Your task to perform on an android device: Check the news Image 0: 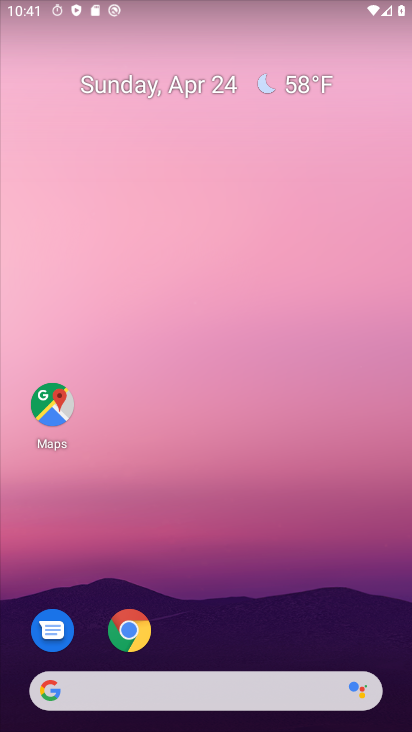
Step 0: drag from (261, 556) to (326, 194)
Your task to perform on an android device: Check the news Image 1: 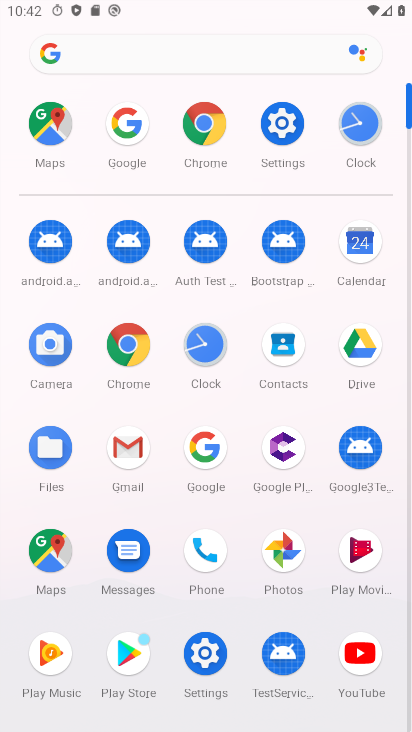
Step 1: click (199, 480)
Your task to perform on an android device: Check the news Image 2: 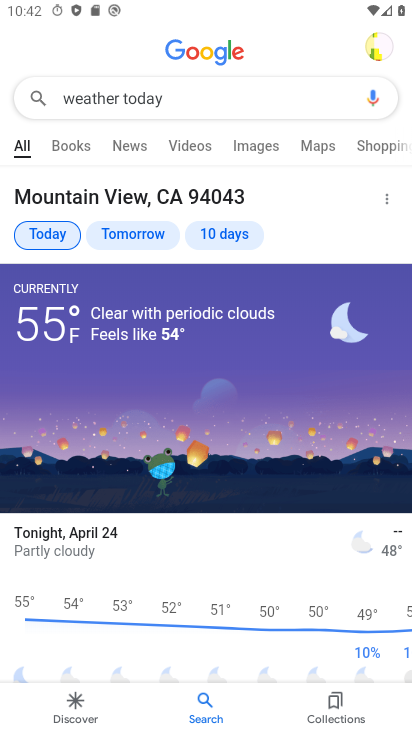
Step 2: click (130, 142)
Your task to perform on an android device: Check the news Image 3: 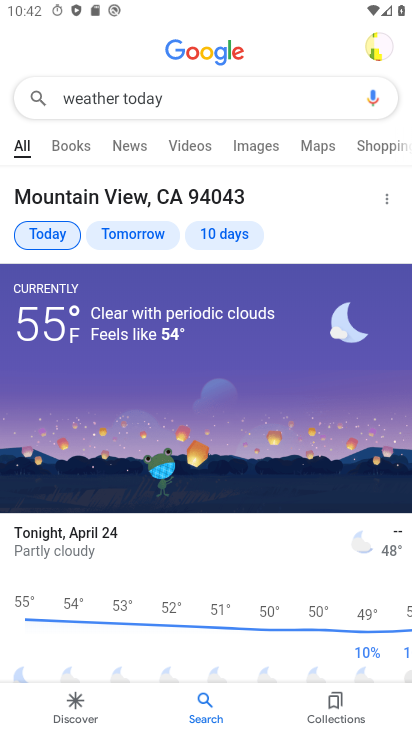
Step 3: click (143, 151)
Your task to perform on an android device: Check the news Image 4: 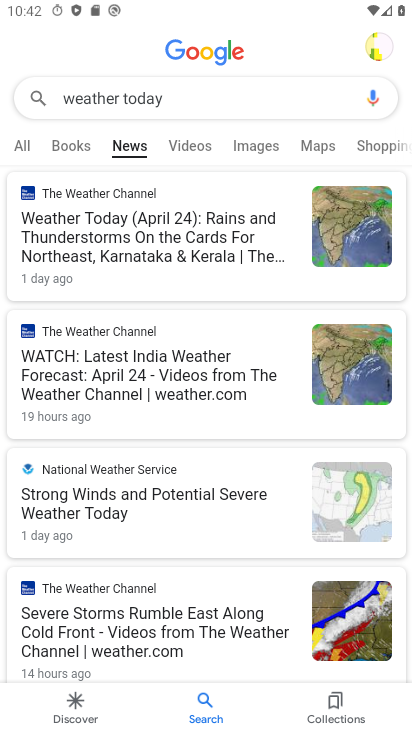
Step 4: task complete